Your task to perform on an android device: see tabs open on other devices in the chrome app Image 0: 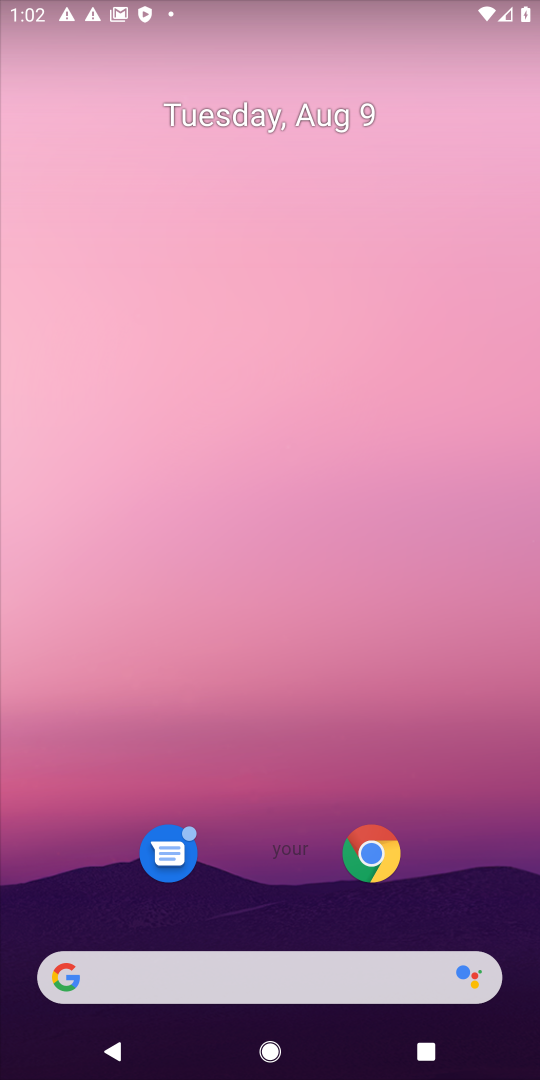
Step 0: drag from (244, 573) to (267, 88)
Your task to perform on an android device: see tabs open on other devices in the chrome app Image 1: 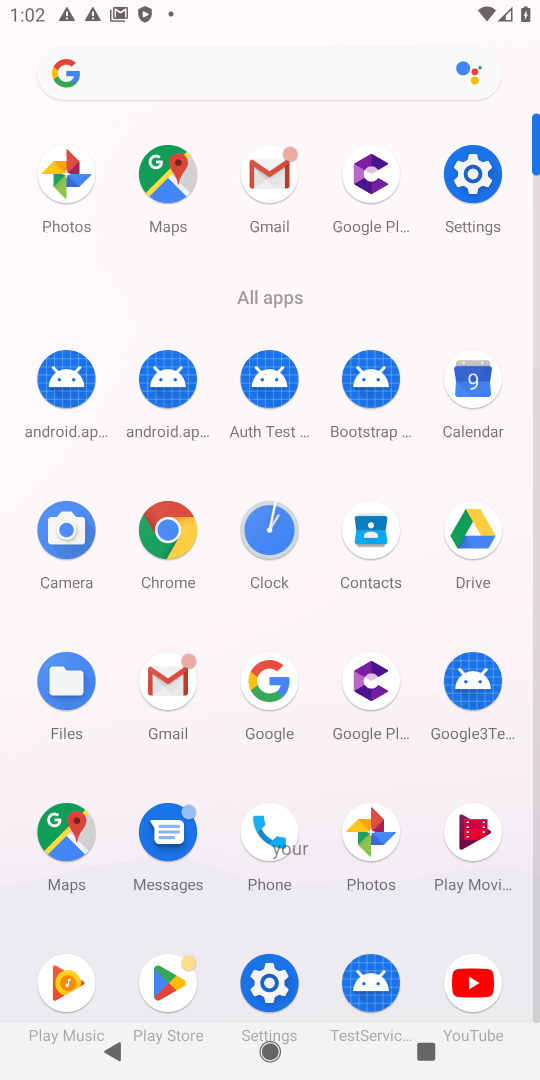
Step 1: click (171, 527)
Your task to perform on an android device: see tabs open on other devices in the chrome app Image 2: 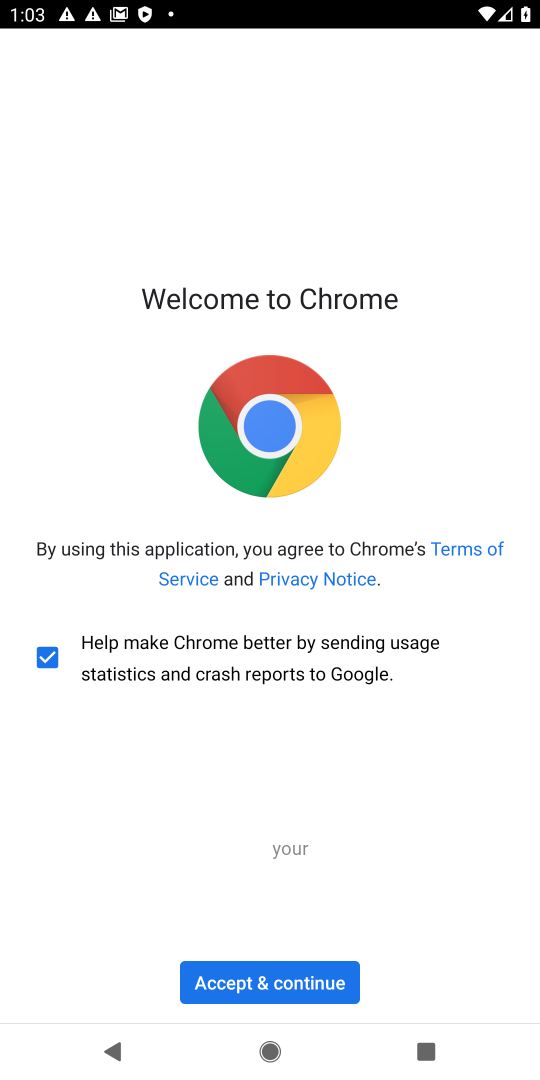
Step 2: click (292, 957)
Your task to perform on an android device: see tabs open on other devices in the chrome app Image 3: 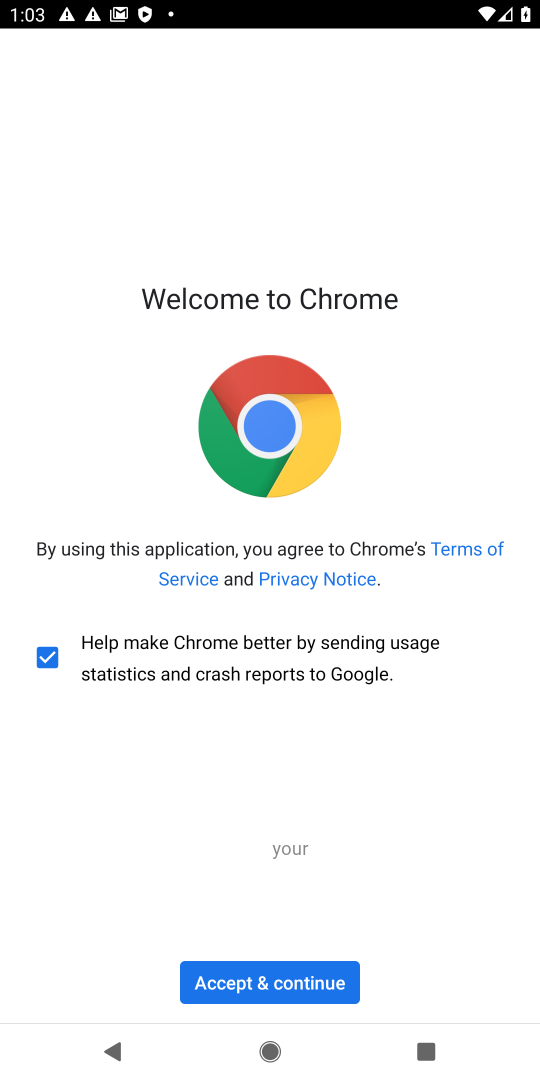
Step 3: click (312, 989)
Your task to perform on an android device: see tabs open on other devices in the chrome app Image 4: 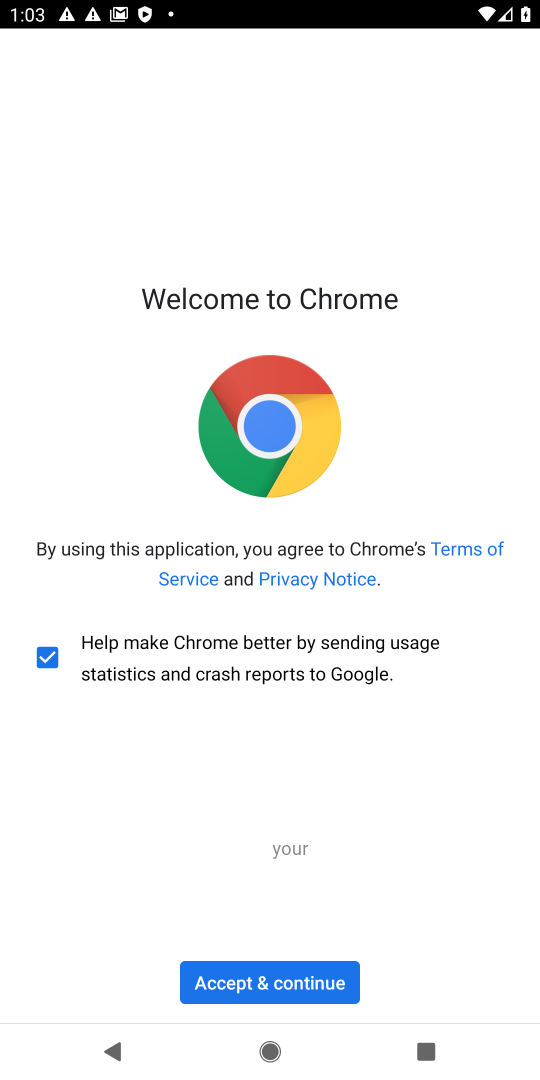
Step 4: click (312, 987)
Your task to perform on an android device: see tabs open on other devices in the chrome app Image 5: 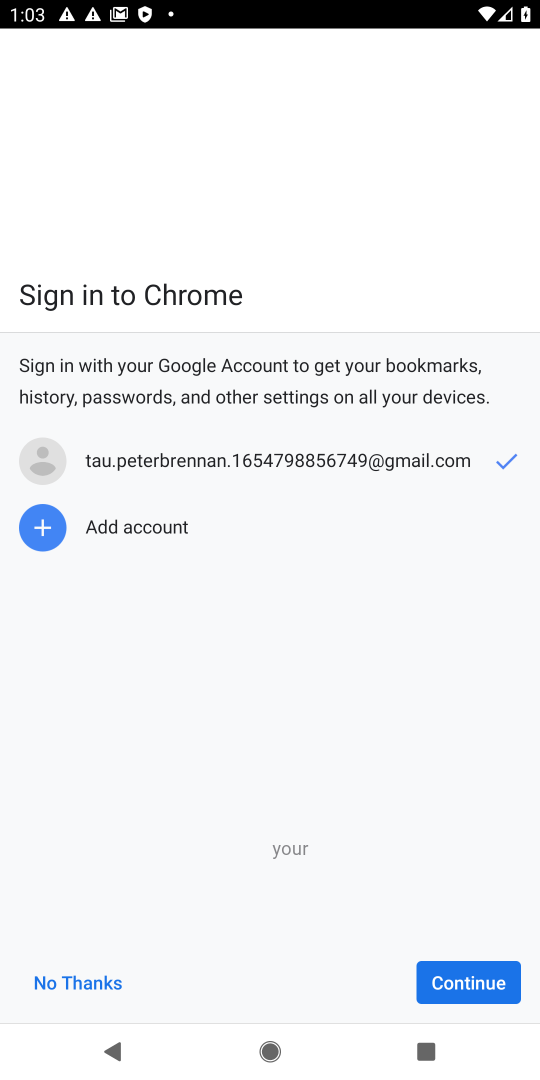
Step 5: click (434, 988)
Your task to perform on an android device: see tabs open on other devices in the chrome app Image 6: 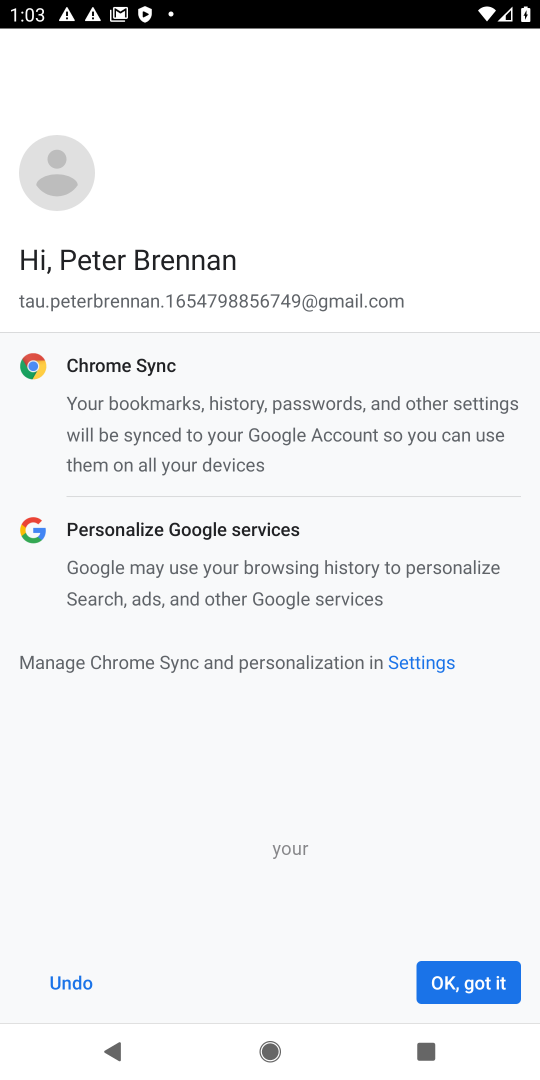
Step 6: click (467, 976)
Your task to perform on an android device: see tabs open on other devices in the chrome app Image 7: 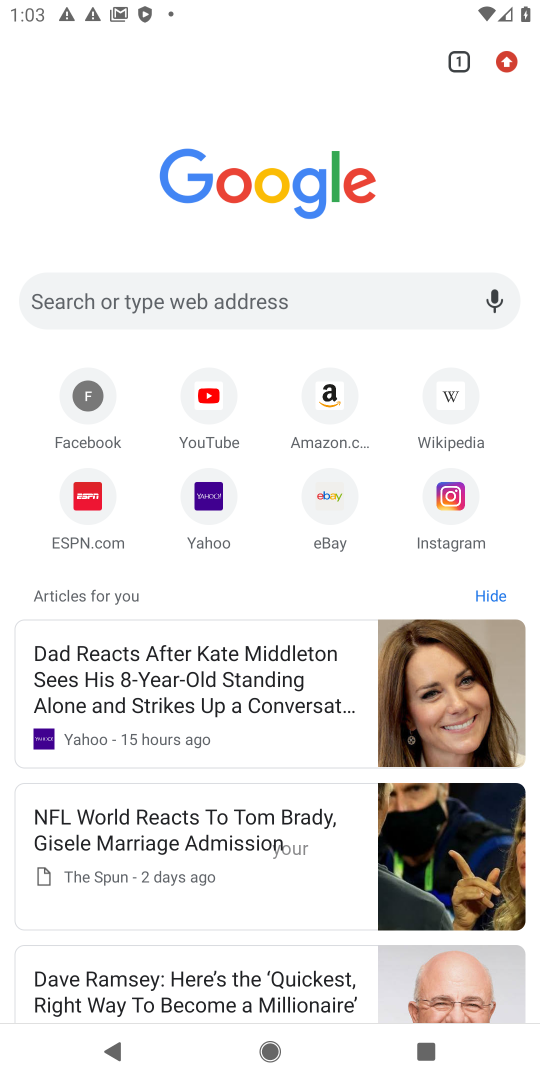
Step 7: task complete